Your task to perform on an android device: delete a single message in the gmail app Image 0: 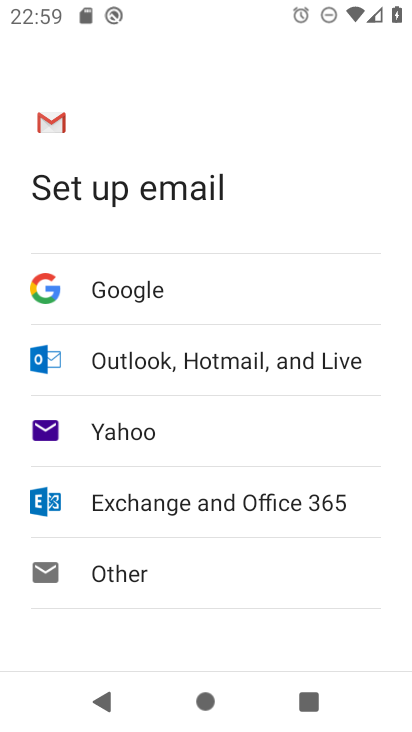
Step 0: press home button
Your task to perform on an android device: delete a single message in the gmail app Image 1: 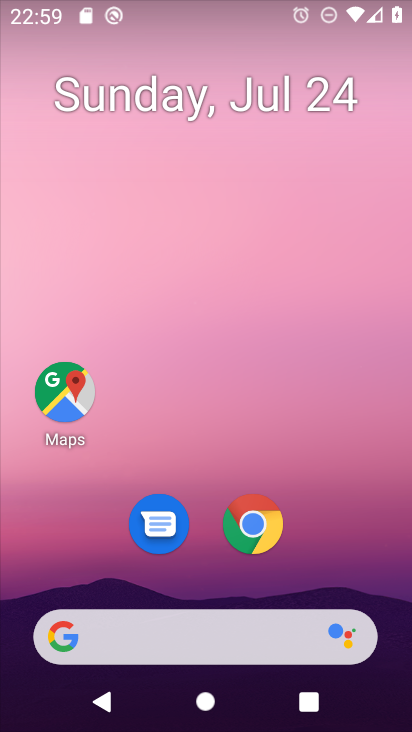
Step 1: drag from (202, 640) to (300, 97)
Your task to perform on an android device: delete a single message in the gmail app Image 2: 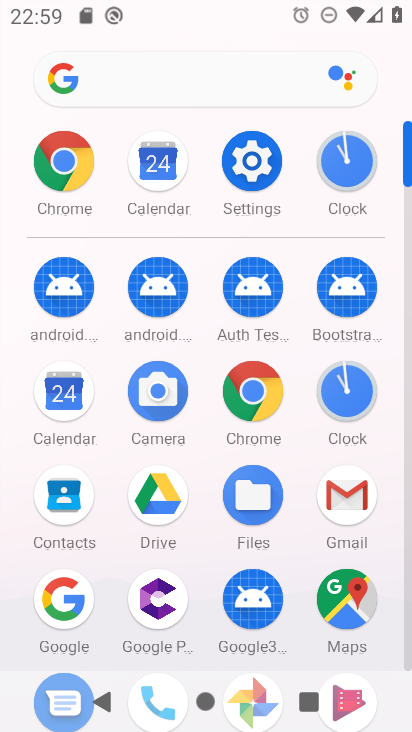
Step 2: click (347, 499)
Your task to perform on an android device: delete a single message in the gmail app Image 3: 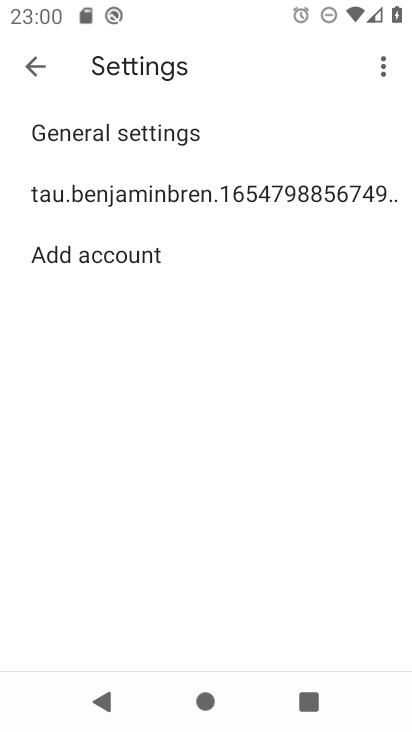
Step 3: click (39, 66)
Your task to perform on an android device: delete a single message in the gmail app Image 4: 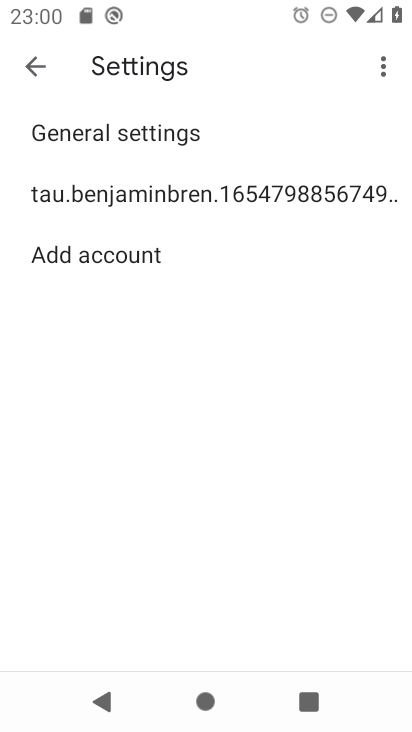
Step 4: click (39, 65)
Your task to perform on an android device: delete a single message in the gmail app Image 5: 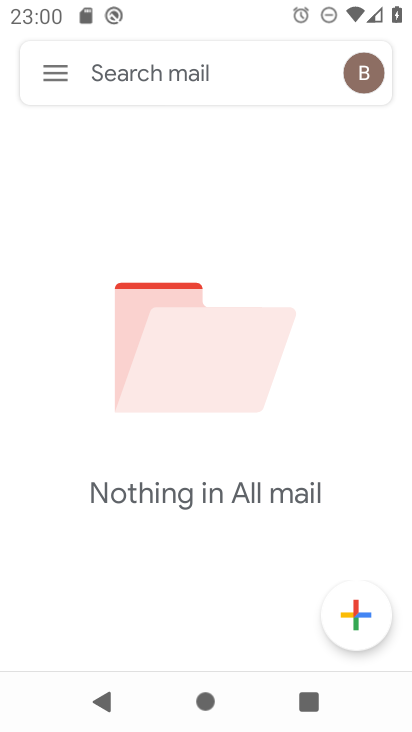
Step 5: task complete